Your task to perform on an android device: change the clock style Image 0: 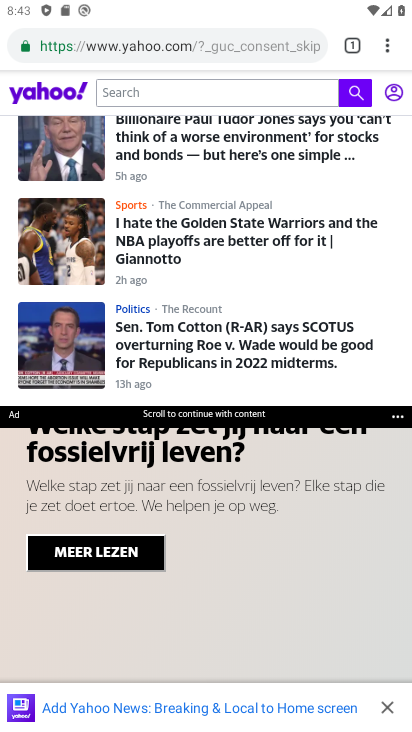
Step 0: press home button
Your task to perform on an android device: change the clock style Image 1: 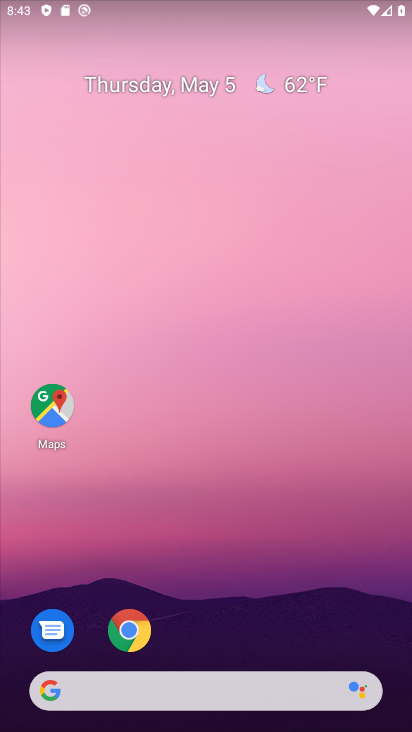
Step 1: press home button
Your task to perform on an android device: change the clock style Image 2: 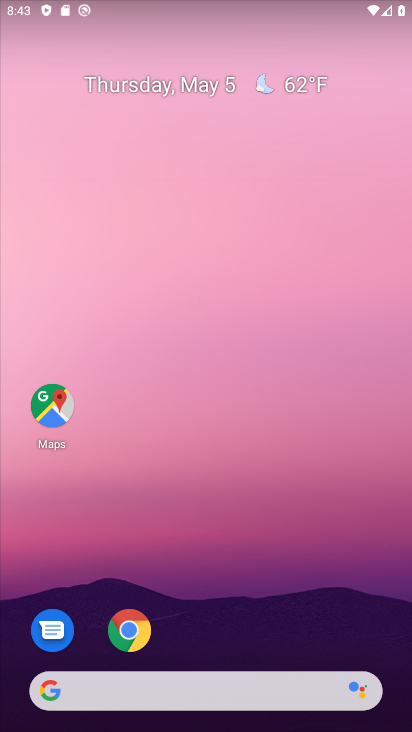
Step 2: drag from (217, 376) to (217, 37)
Your task to perform on an android device: change the clock style Image 3: 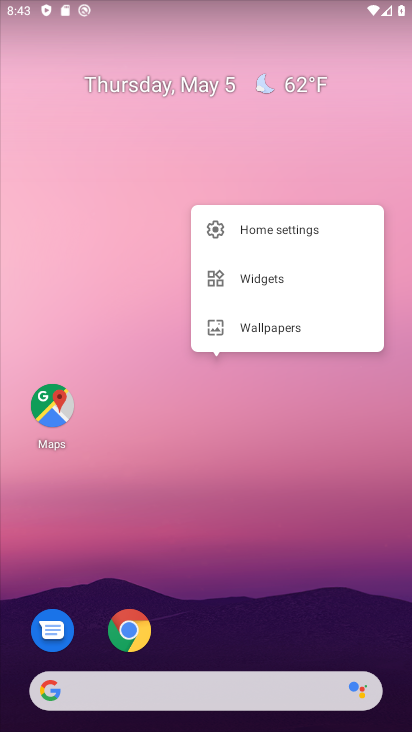
Step 3: click (194, 586)
Your task to perform on an android device: change the clock style Image 4: 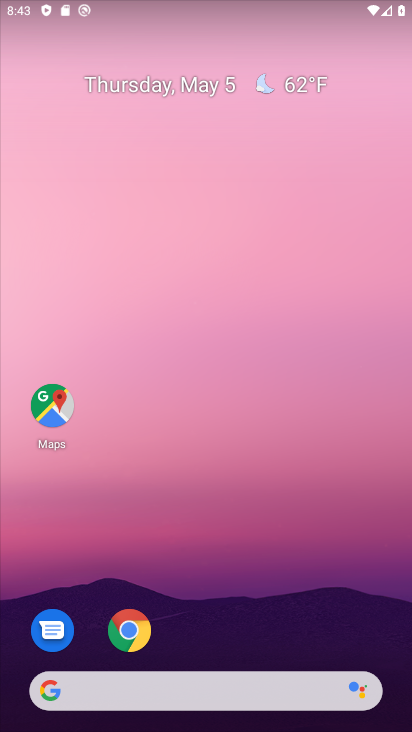
Step 4: drag from (217, 633) to (212, 145)
Your task to perform on an android device: change the clock style Image 5: 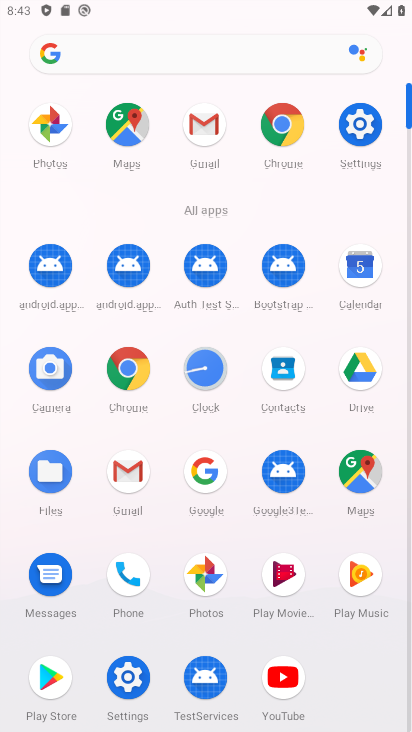
Step 5: click (200, 363)
Your task to perform on an android device: change the clock style Image 6: 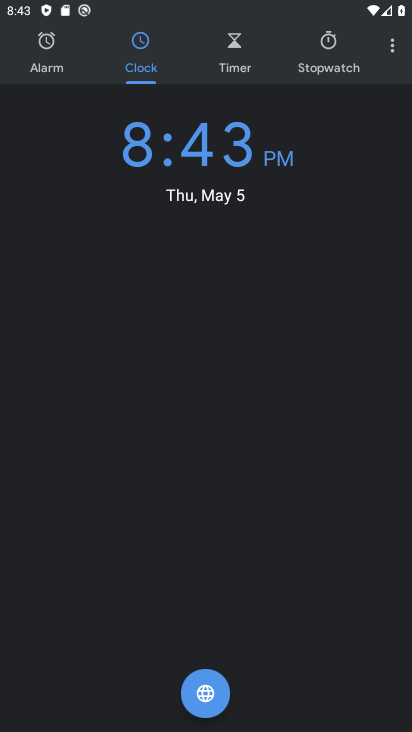
Step 6: click (393, 47)
Your task to perform on an android device: change the clock style Image 7: 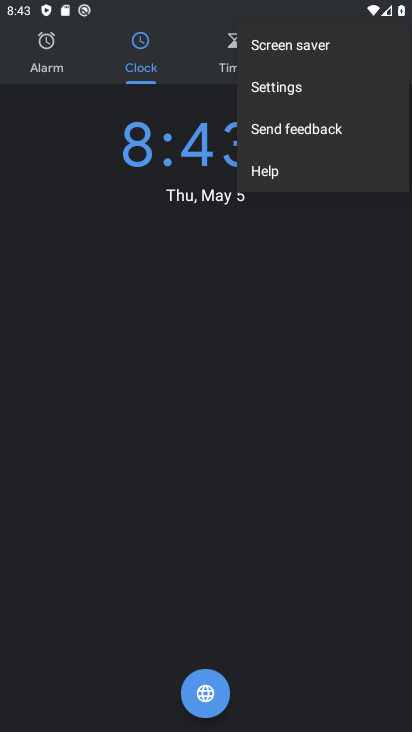
Step 7: click (308, 87)
Your task to perform on an android device: change the clock style Image 8: 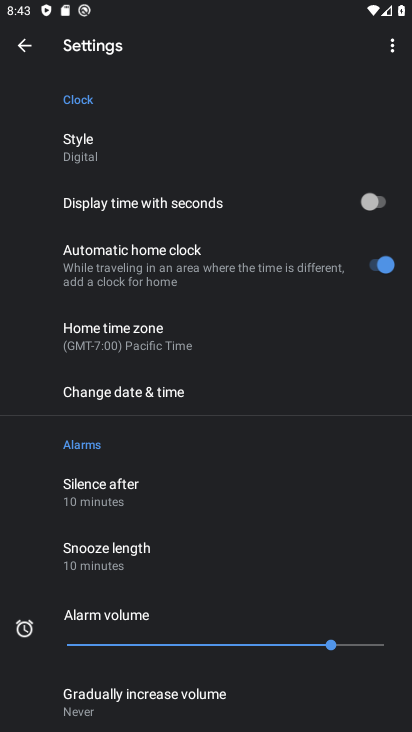
Step 8: click (118, 145)
Your task to perform on an android device: change the clock style Image 9: 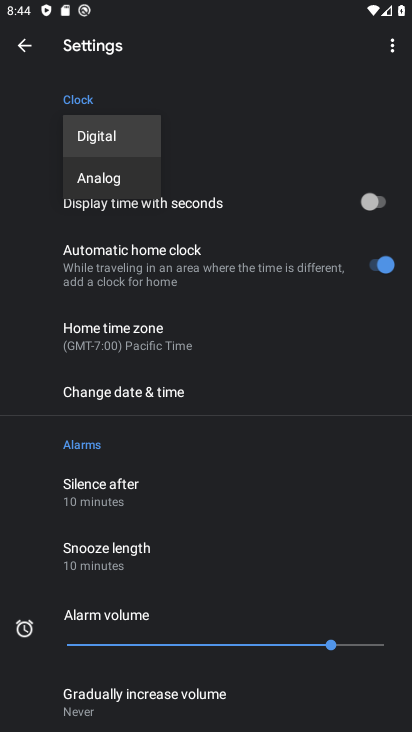
Step 9: click (133, 179)
Your task to perform on an android device: change the clock style Image 10: 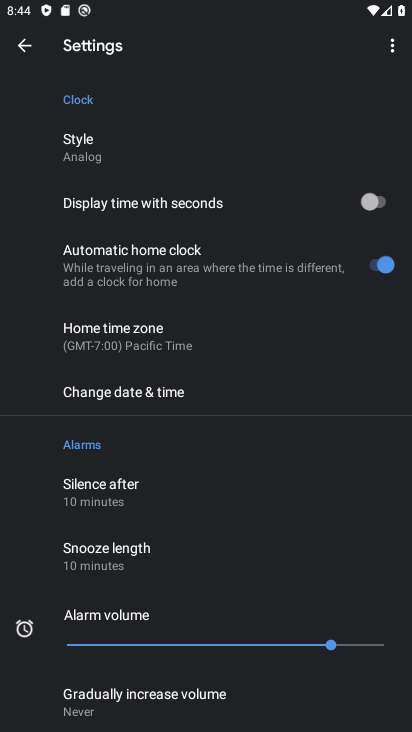
Step 10: task complete